Your task to perform on an android device: change timer sound Image 0: 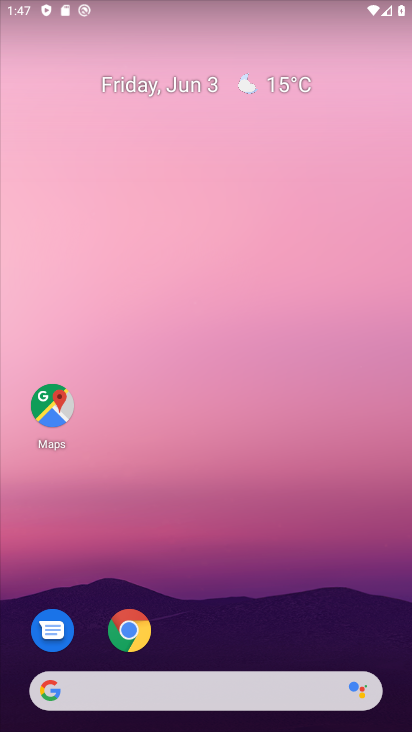
Step 0: press home button
Your task to perform on an android device: change timer sound Image 1: 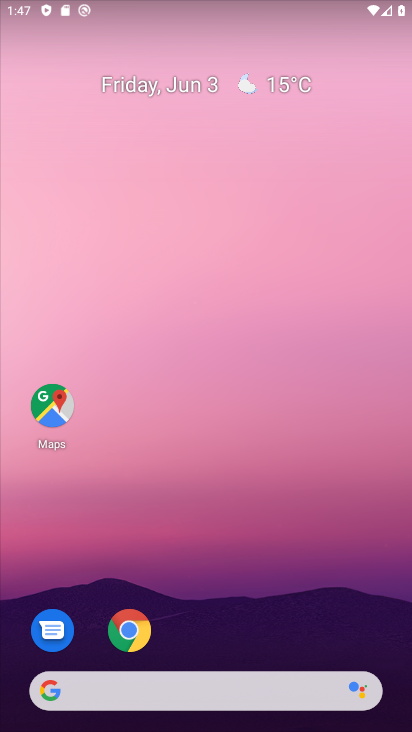
Step 1: drag from (217, 575) to (382, 12)
Your task to perform on an android device: change timer sound Image 2: 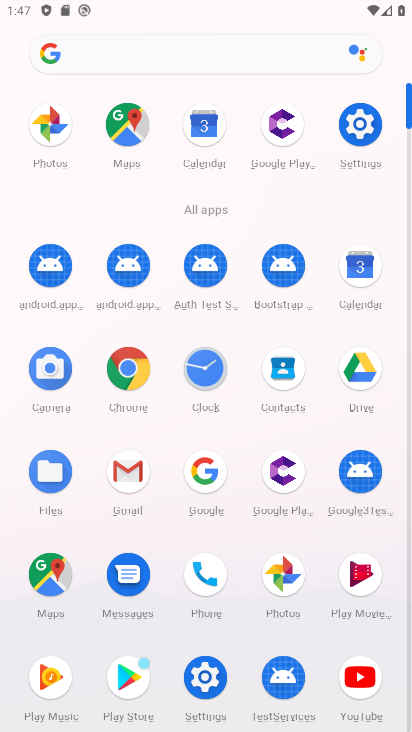
Step 2: click (182, 350)
Your task to perform on an android device: change timer sound Image 3: 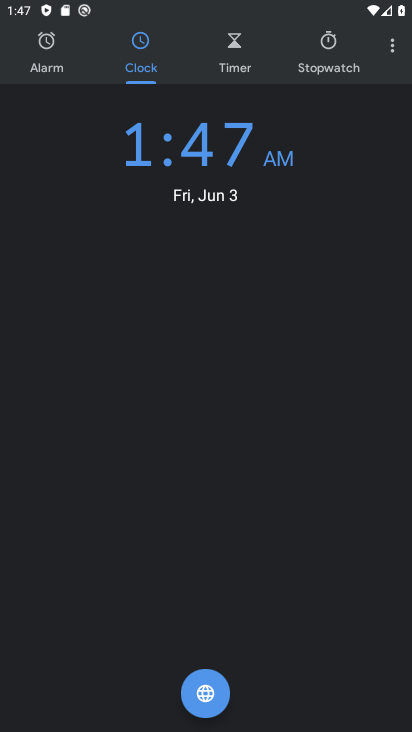
Step 3: click (385, 53)
Your task to perform on an android device: change timer sound Image 4: 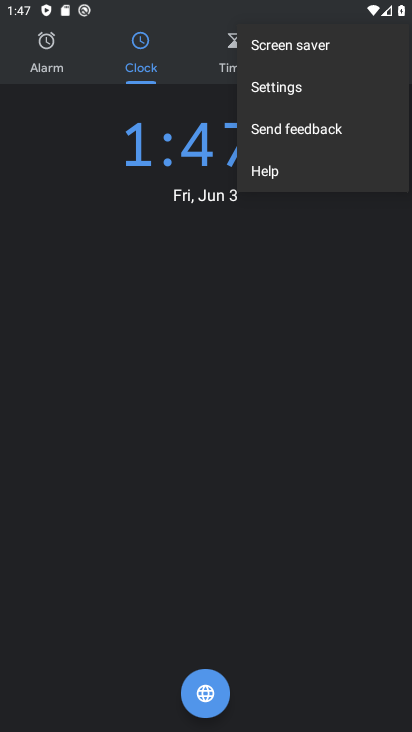
Step 4: click (291, 101)
Your task to perform on an android device: change timer sound Image 5: 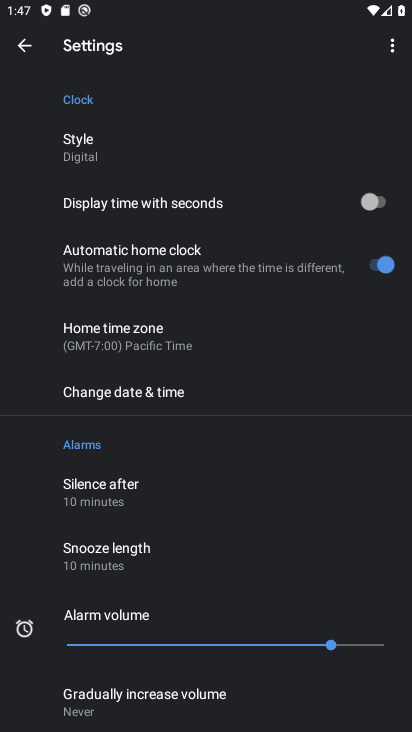
Step 5: drag from (204, 590) to (229, 228)
Your task to perform on an android device: change timer sound Image 6: 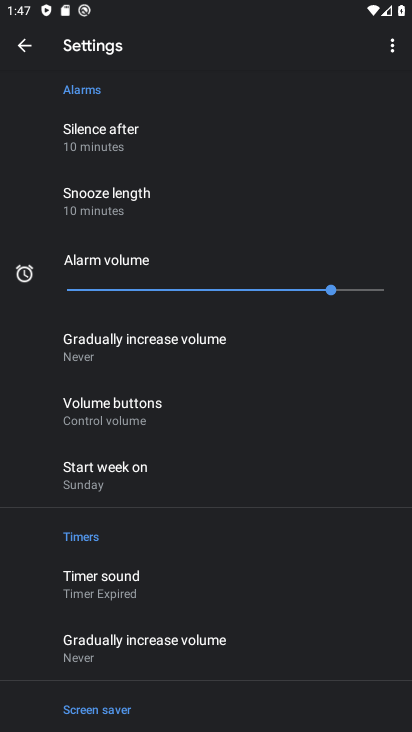
Step 6: click (140, 595)
Your task to perform on an android device: change timer sound Image 7: 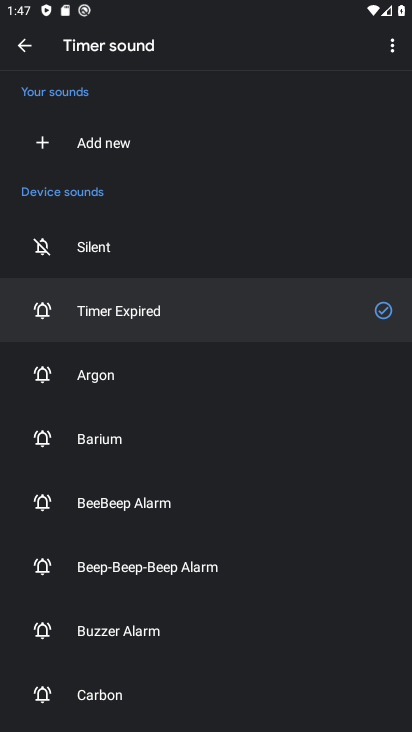
Step 7: click (118, 539)
Your task to perform on an android device: change timer sound Image 8: 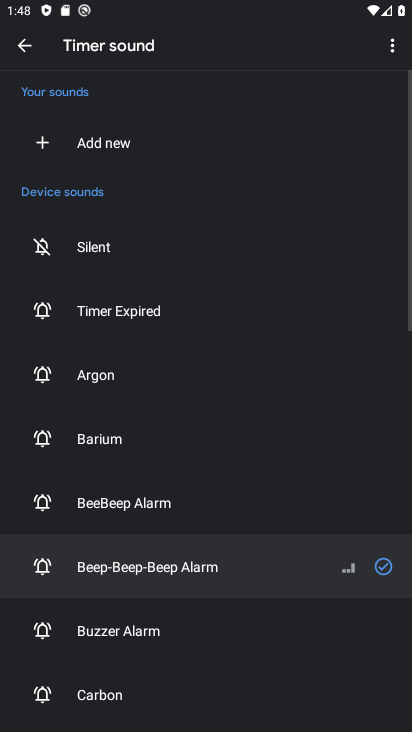
Step 8: task complete